Your task to perform on an android device: Clear the shopping cart on bestbuy. Image 0: 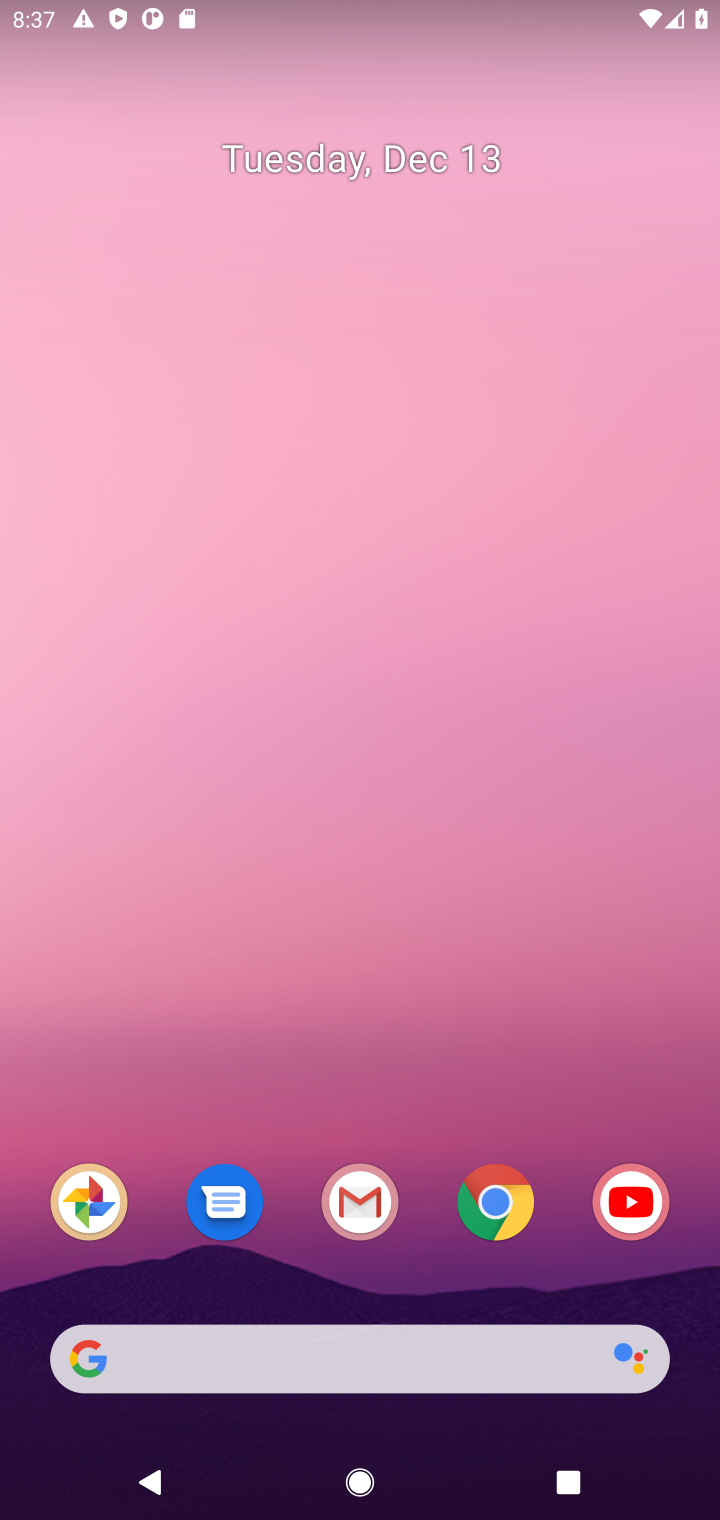
Step 0: click (496, 1211)
Your task to perform on an android device: Clear the shopping cart on bestbuy. Image 1: 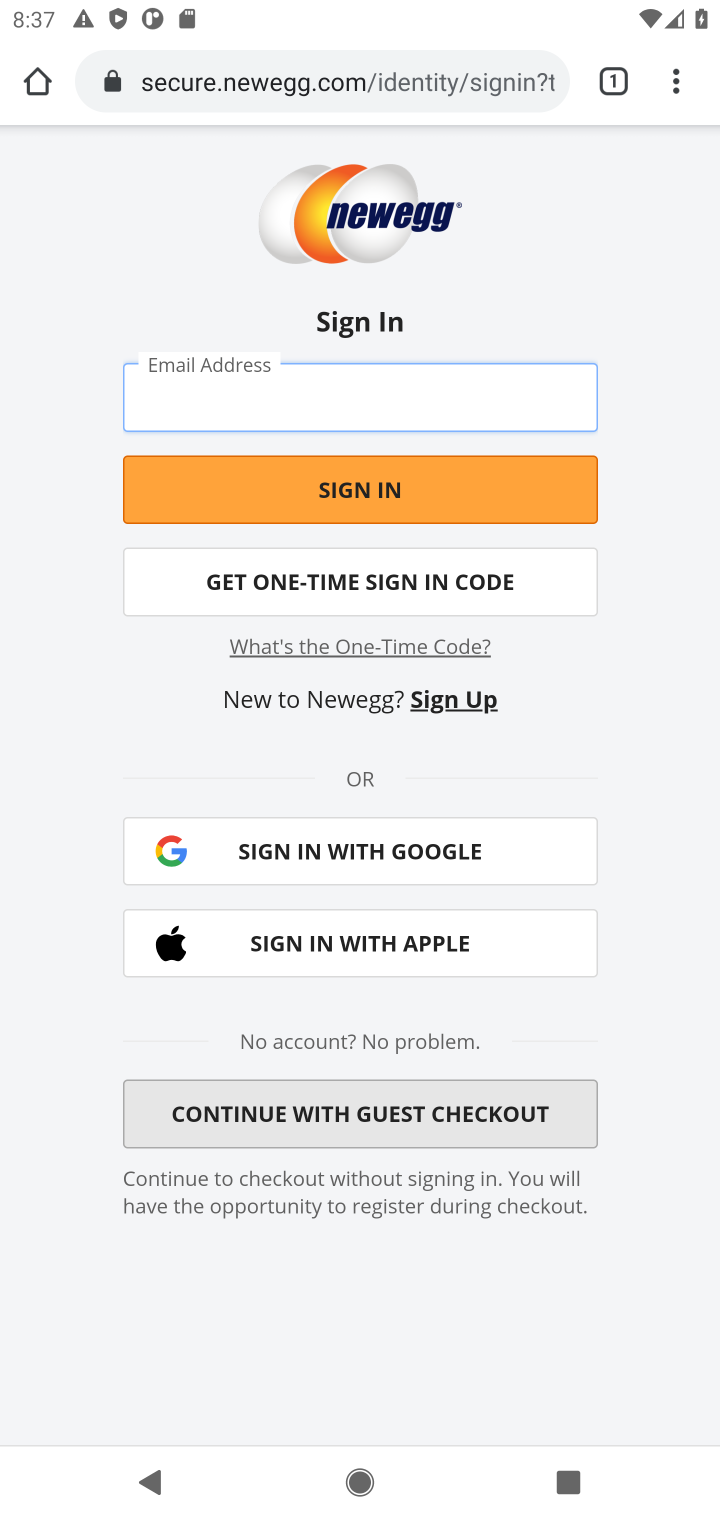
Step 1: click (261, 85)
Your task to perform on an android device: Clear the shopping cart on bestbuy. Image 2: 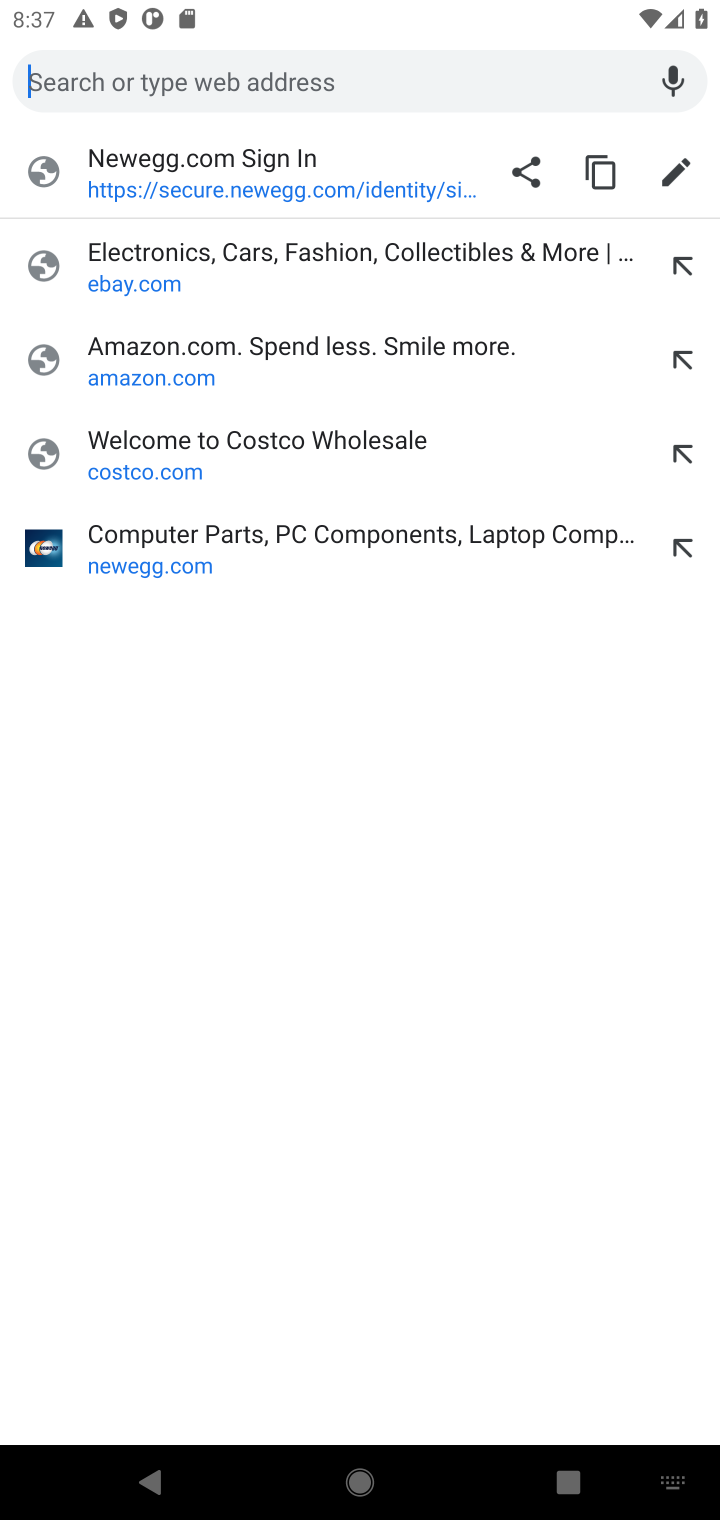
Step 2: type "bestbuy.com"
Your task to perform on an android device: Clear the shopping cart on bestbuy. Image 3: 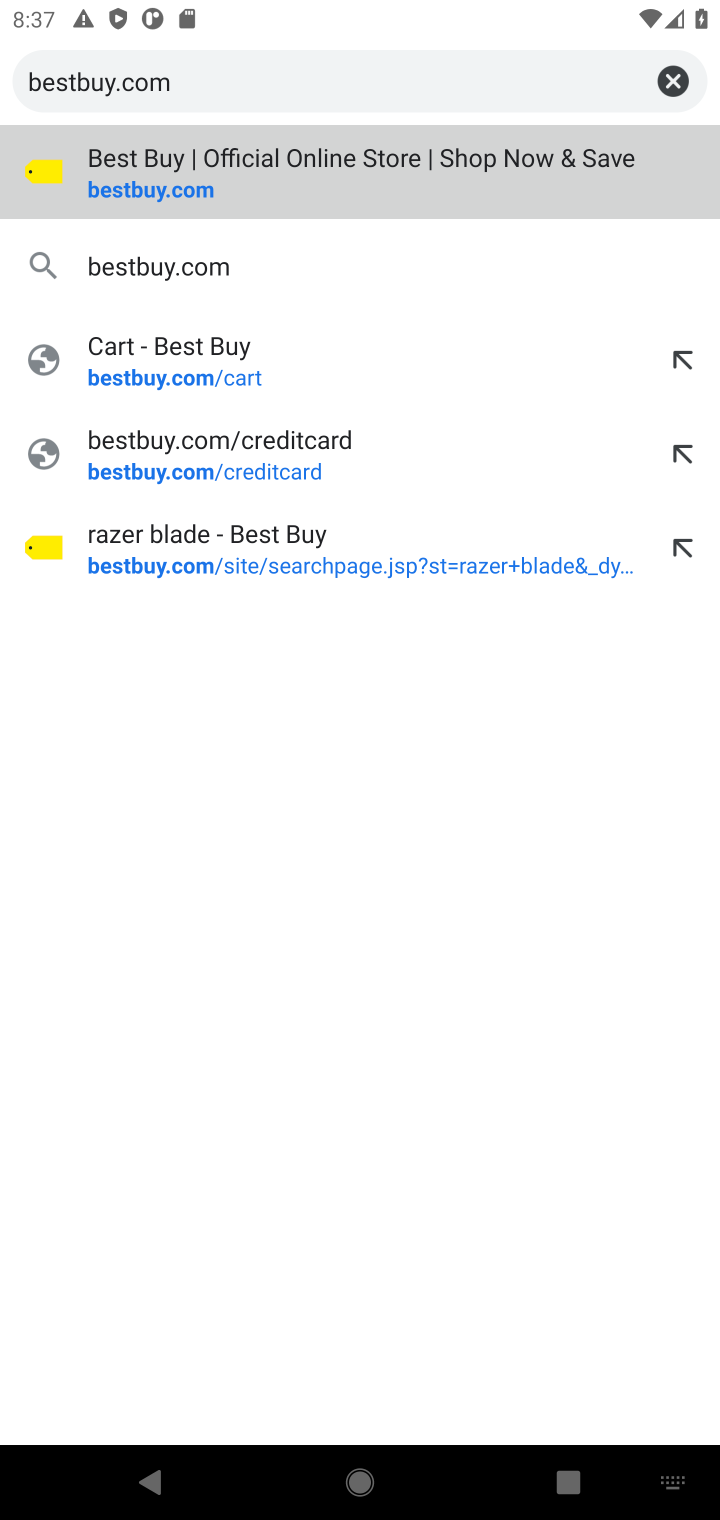
Step 3: click (135, 190)
Your task to perform on an android device: Clear the shopping cart on bestbuy. Image 4: 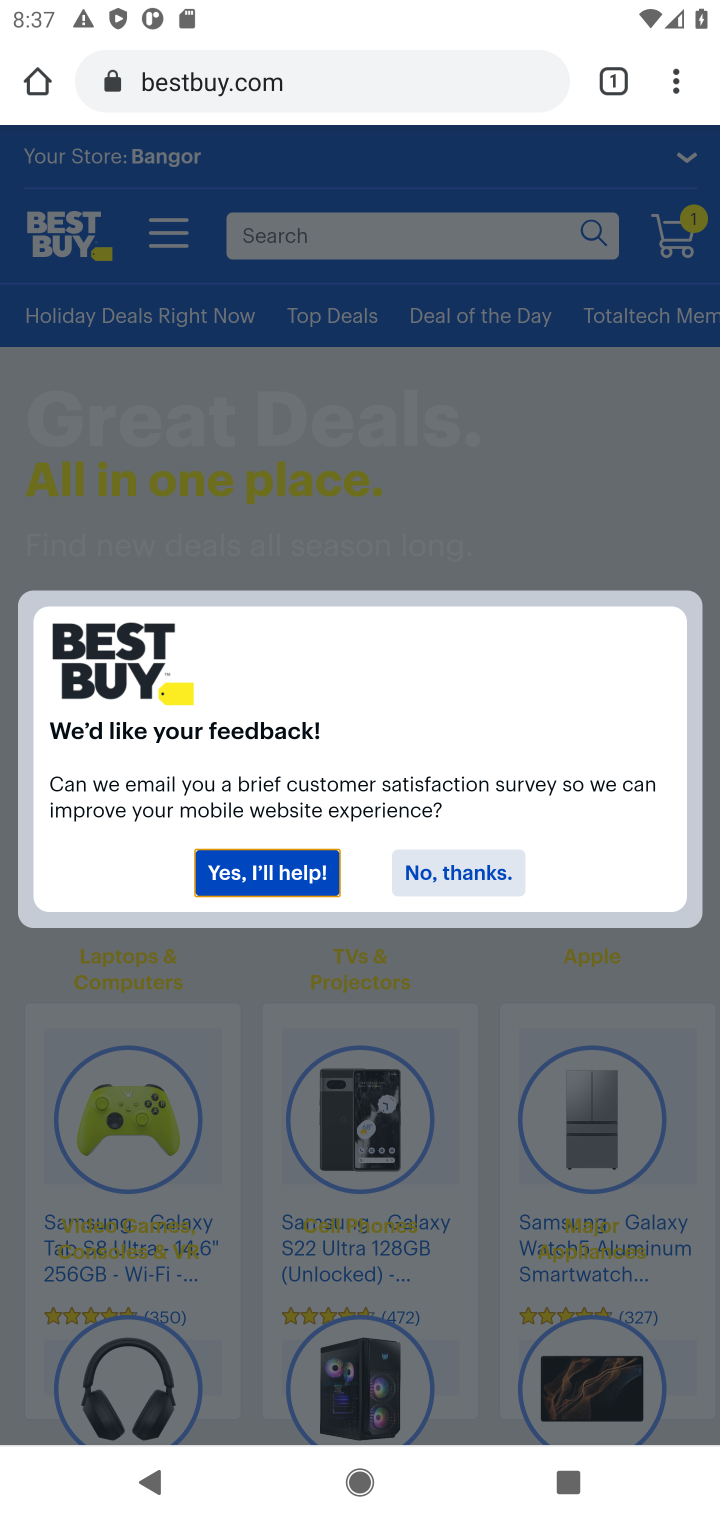
Step 4: click (461, 880)
Your task to perform on an android device: Clear the shopping cart on bestbuy. Image 5: 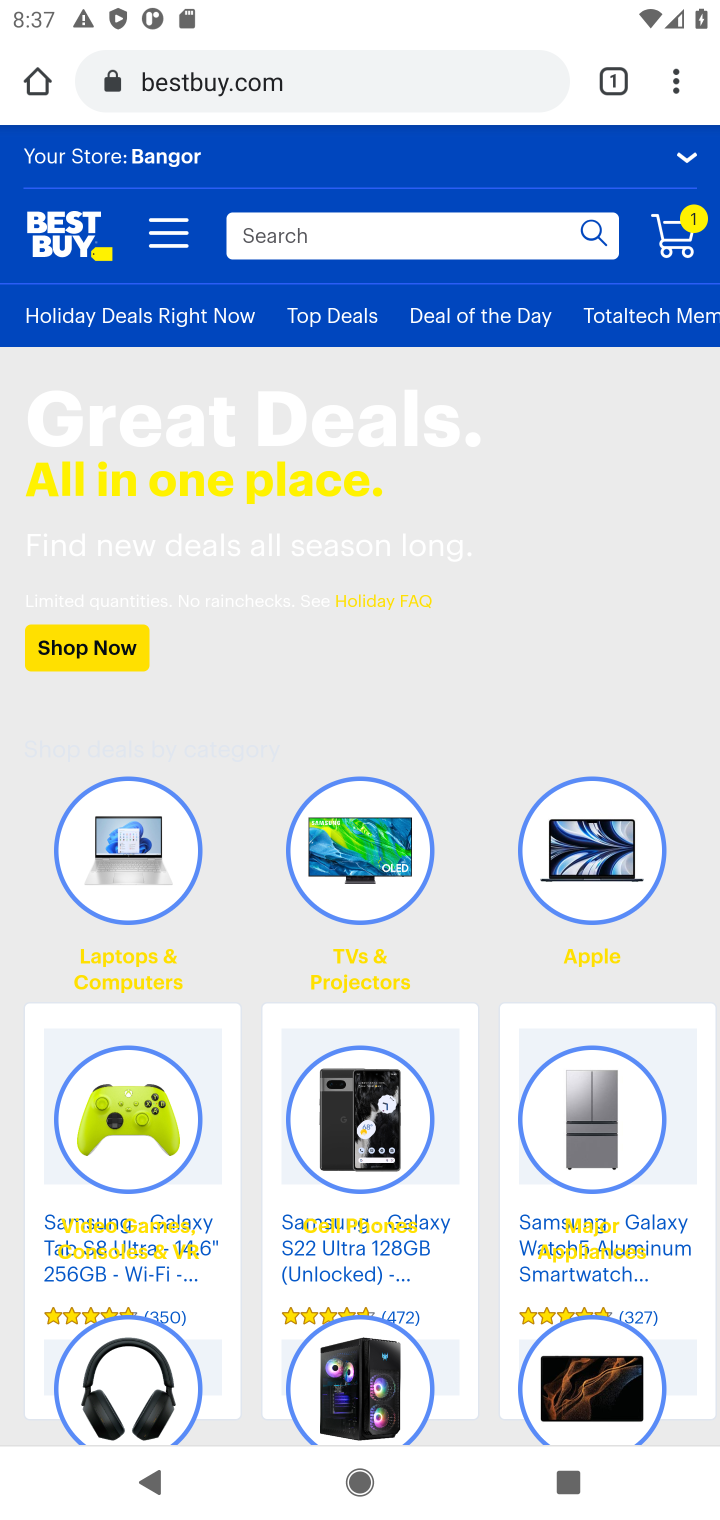
Step 5: click (686, 239)
Your task to perform on an android device: Clear the shopping cart on bestbuy. Image 6: 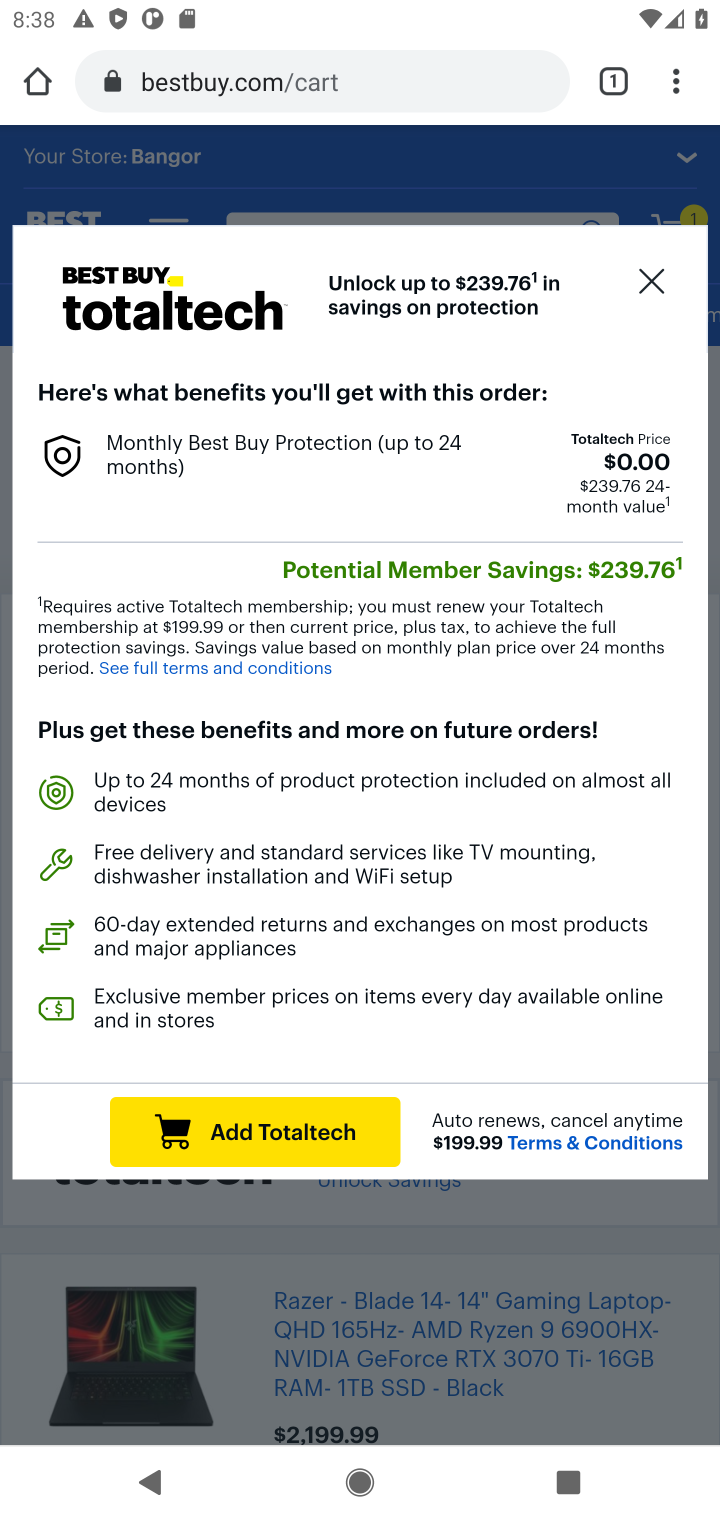
Step 6: click (653, 281)
Your task to perform on an android device: Clear the shopping cart on bestbuy. Image 7: 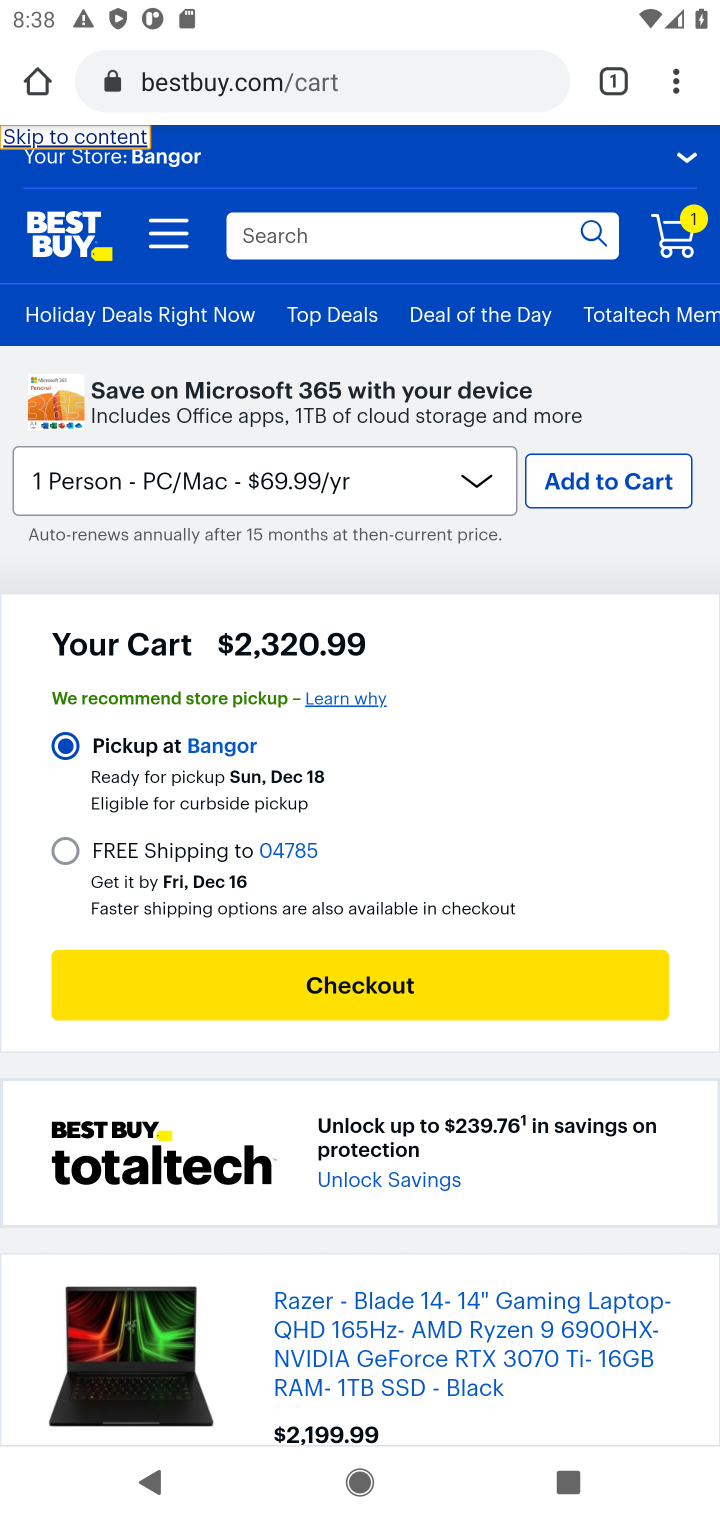
Step 7: drag from (354, 1093) to (274, 484)
Your task to perform on an android device: Clear the shopping cart on bestbuy. Image 8: 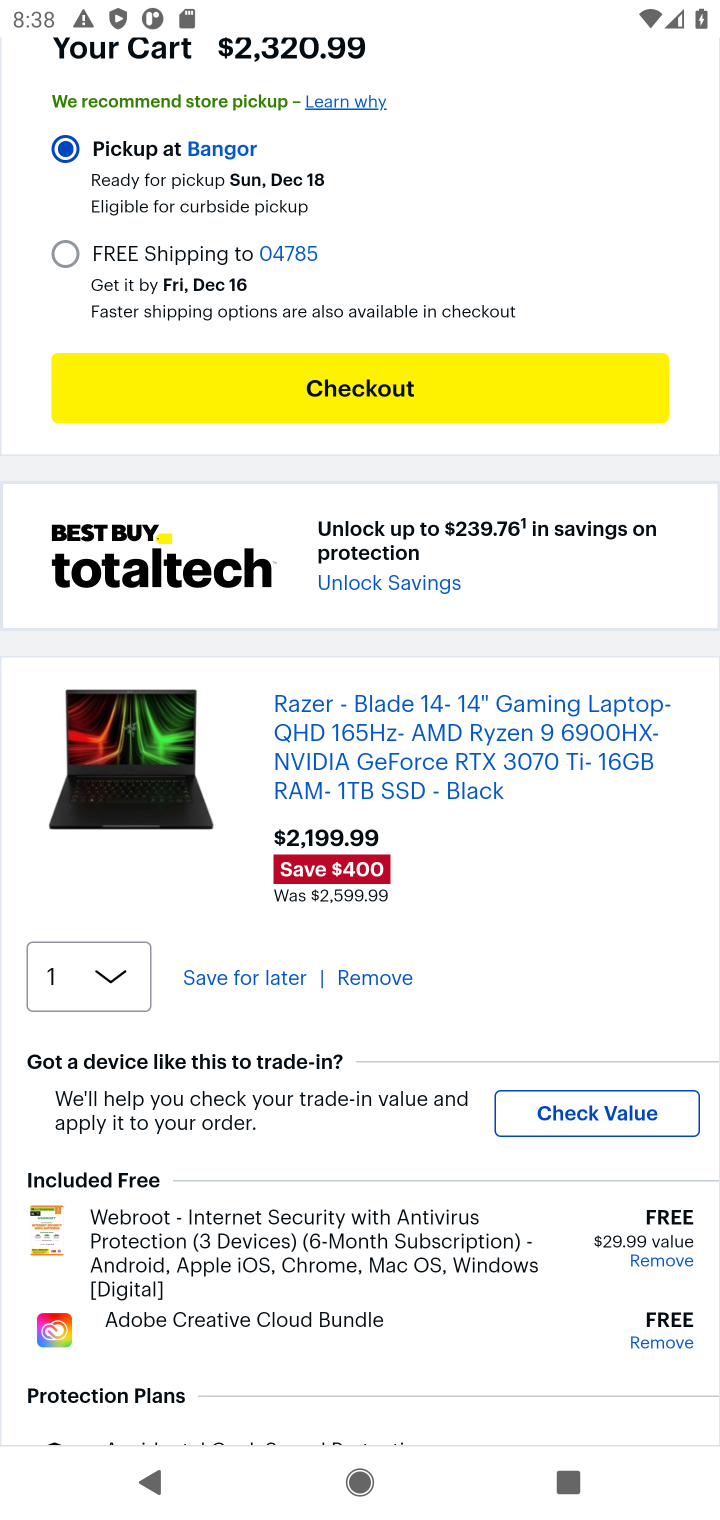
Step 8: click (405, 982)
Your task to perform on an android device: Clear the shopping cart on bestbuy. Image 9: 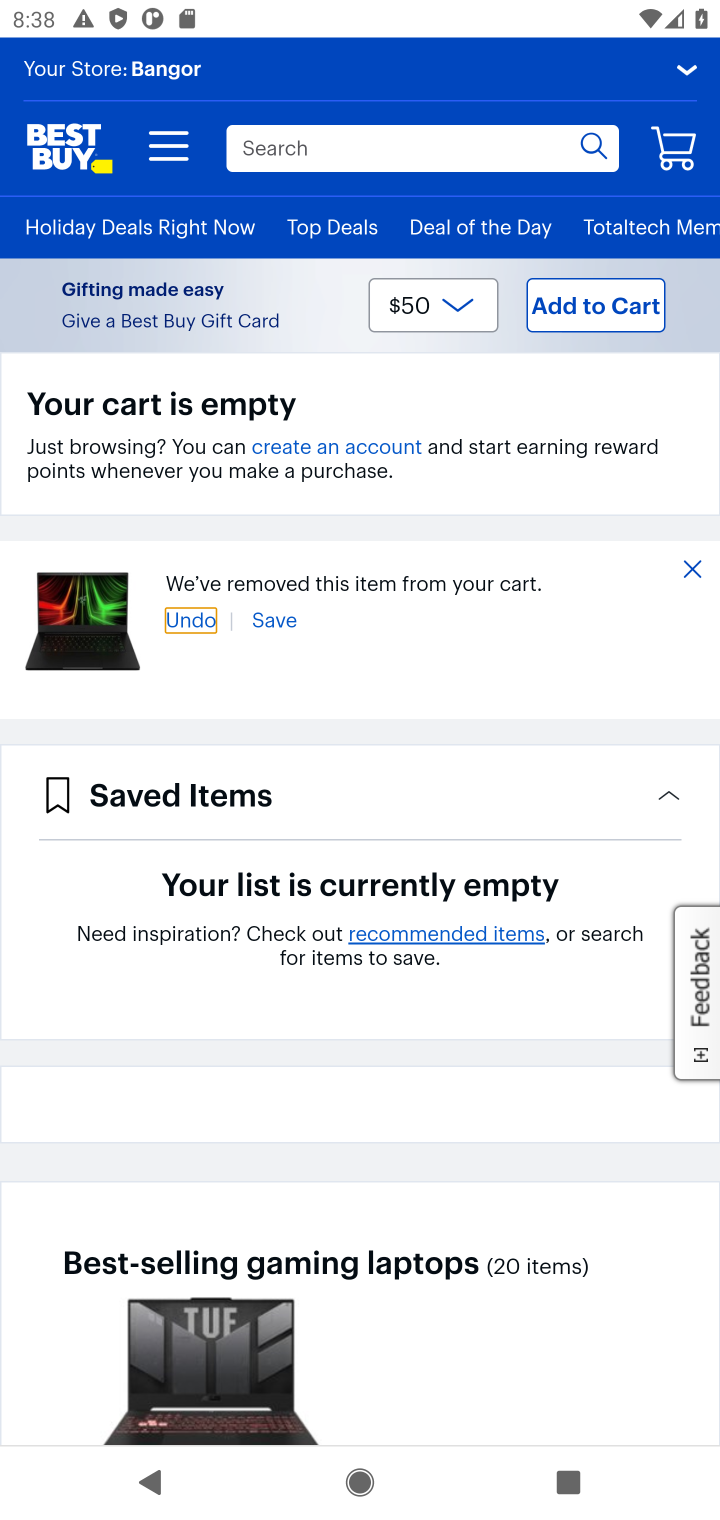
Step 9: task complete